Your task to perform on an android device: open chrome privacy settings Image 0: 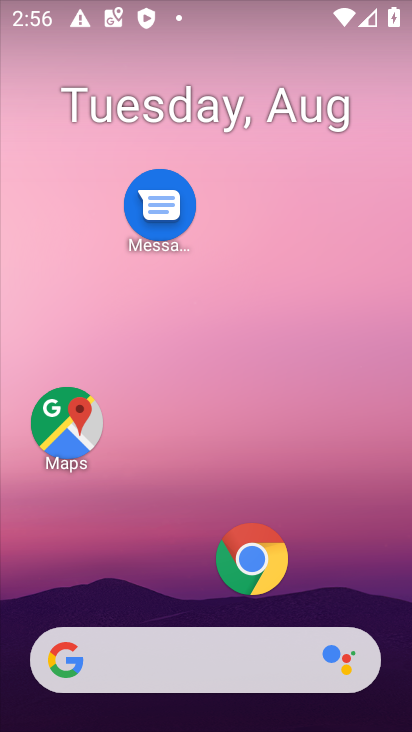
Step 0: click (251, 561)
Your task to perform on an android device: open chrome privacy settings Image 1: 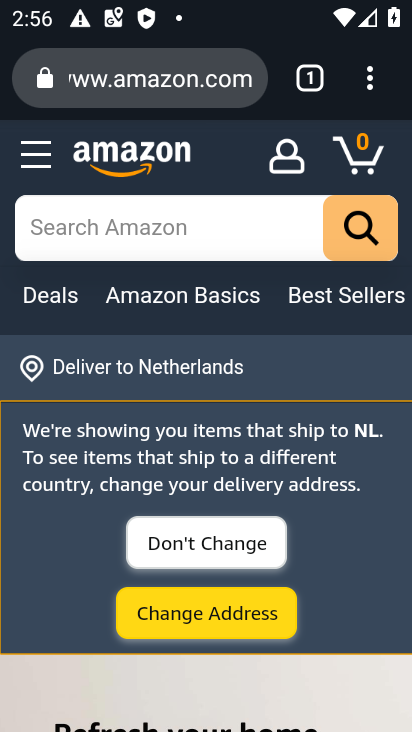
Step 1: click (368, 77)
Your task to perform on an android device: open chrome privacy settings Image 2: 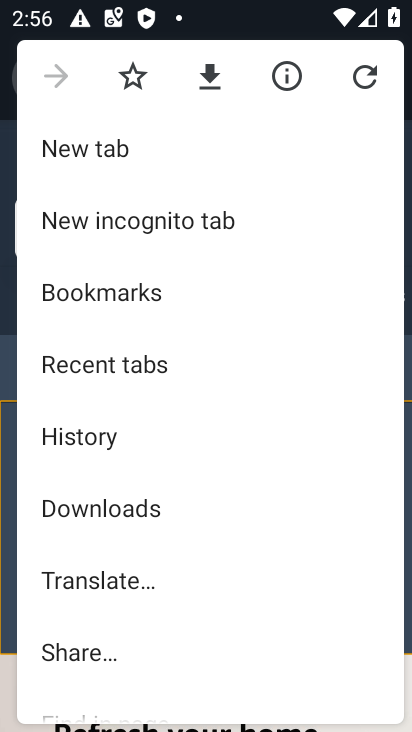
Step 2: drag from (221, 619) to (226, 318)
Your task to perform on an android device: open chrome privacy settings Image 3: 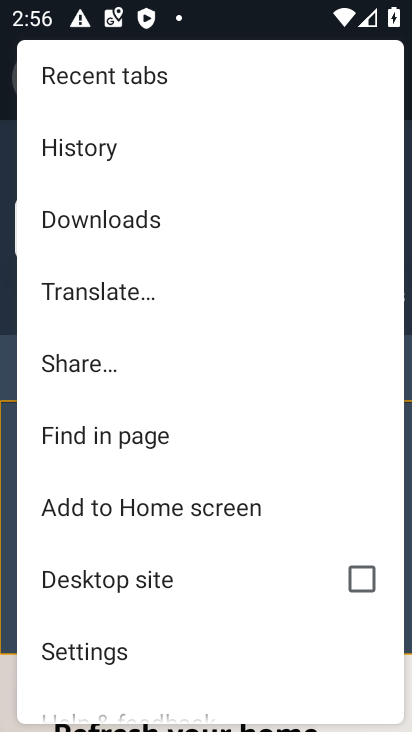
Step 3: click (89, 646)
Your task to perform on an android device: open chrome privacy settings Image 4: 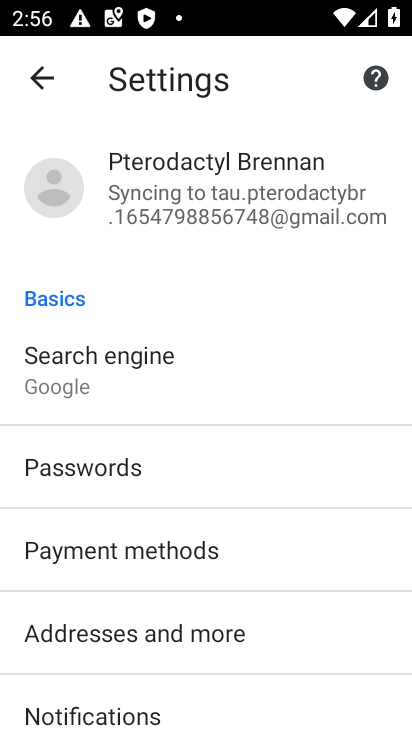
Step 4: drag from (255, 681) to (220, 427)
Your task to perform on an android device: open chrome privacy settings Image 5: 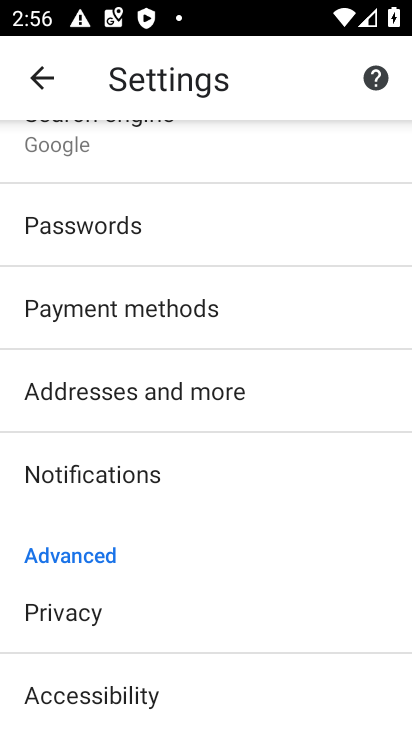
Step 5: click (75, 614)
Your task to perform on an android device: open chrome privacy settings Image 6: 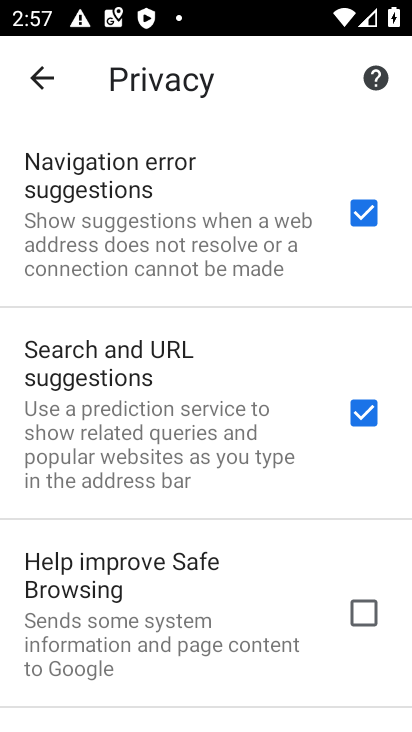
Step 6: task complete